Your task to perform on an android device: turn pop-ups on in chrome Image 0: 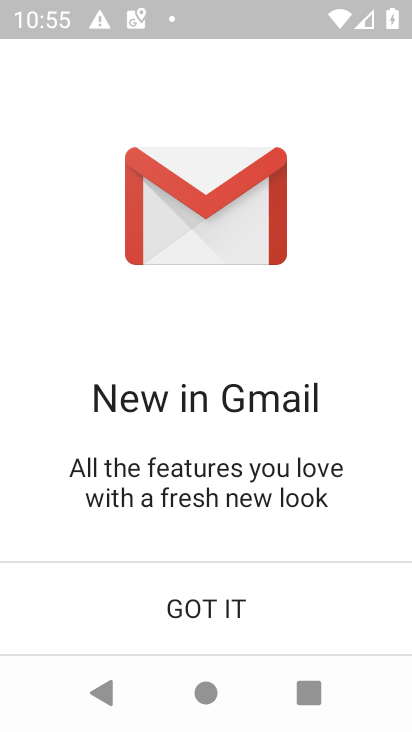
Step 0: press back button
Your task to perform on an android device: turn pop-ups on in chrome Image 1: 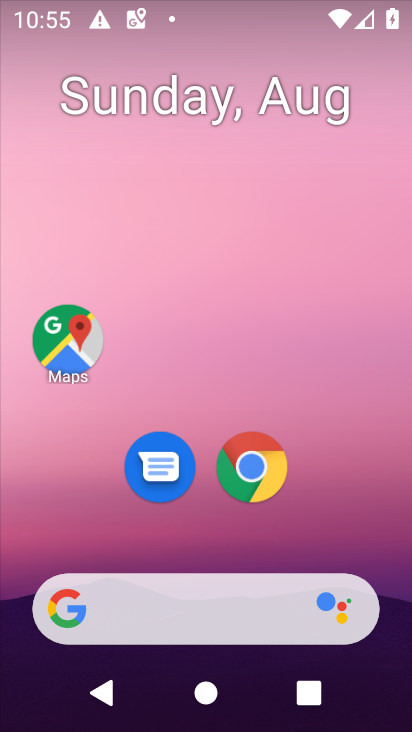
Step 1: drag from (213, 543) to (300, 3)
Your task to perform on an android device: turn pop-ups on in chrome Image 2: 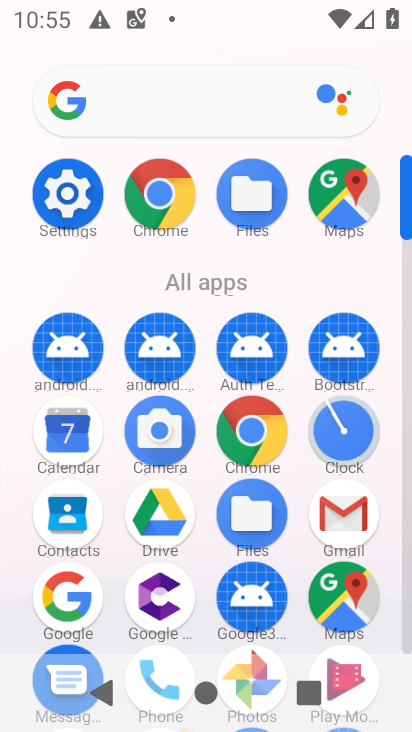
Step 2: drag from (244, 273) to (242, 109)
Your task to perform on an android device: turn pop-ups on in chrome Image 3: 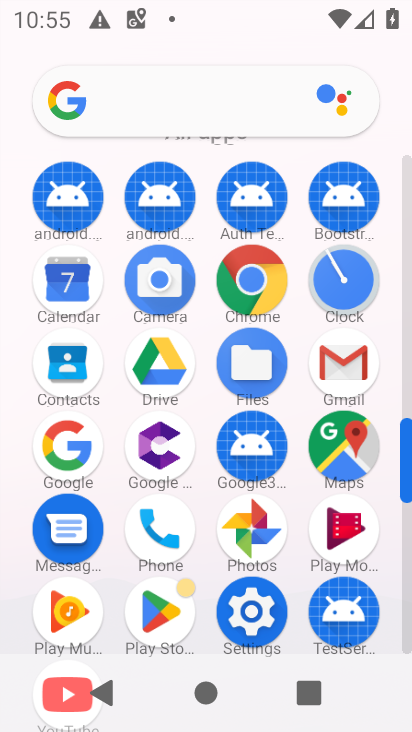
Step 3: click (233, 246)
Your task to perform on an android device: turn pop-ups on in chrome Image 4: 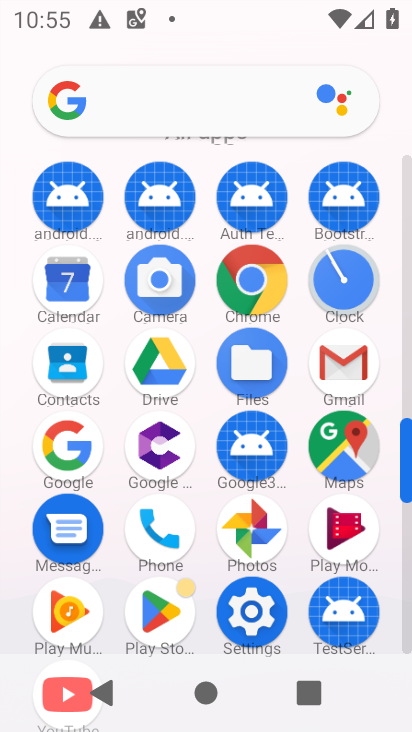
Step 4: click (236, 252)
Your task to perform on an android device: turn pop-ups on in chrome Image 5: 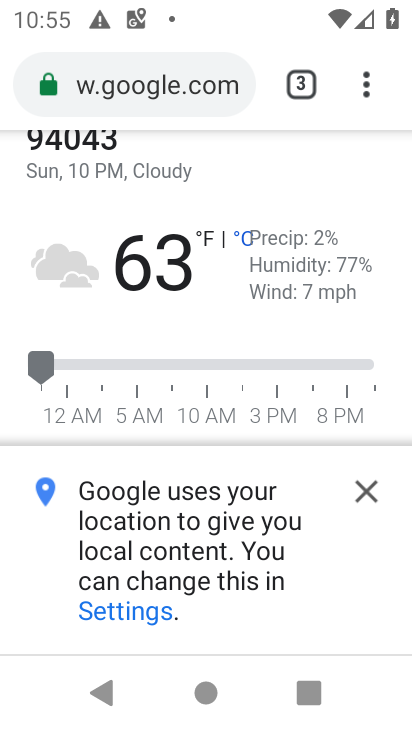
Step 5: click (358, 98)
Your task to perform on an android device: turn pop-ups on in chrome Image 6: 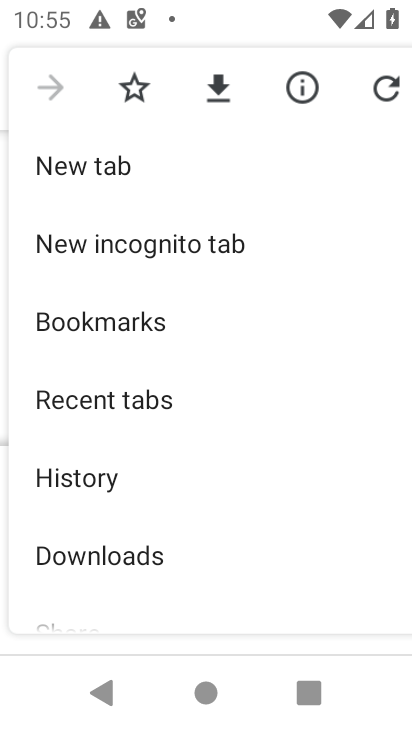
Step 6: drag from (145, 524) to (115, 125)
Your task to perform on an android device: turn pop-ups on in chrome Image 7: 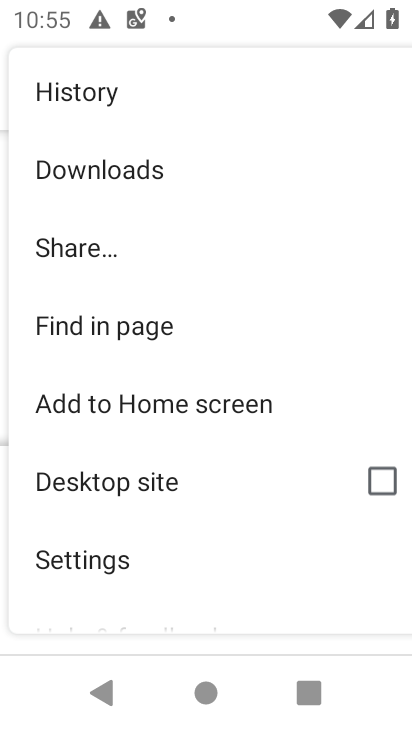
Step 7: drag from (188, 447) to (130, 247)
Your task to perform on an android device: turn pop-ups on in chrome Image 8: 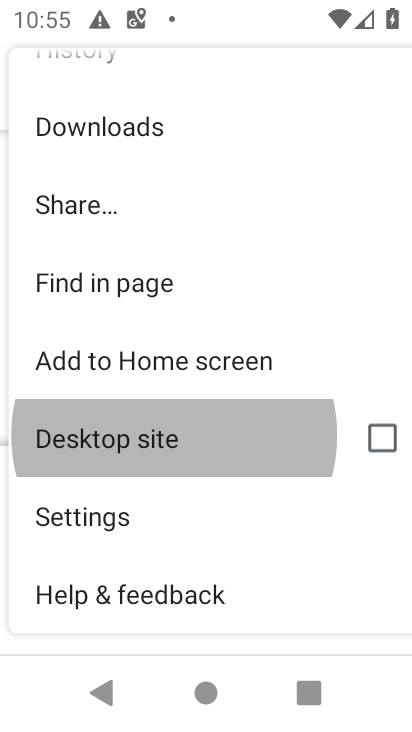
Step 8: drag from (163, 369) to (159, 288)
Your task to perform on an android device: turn pop-ups on in chrome Image 9: 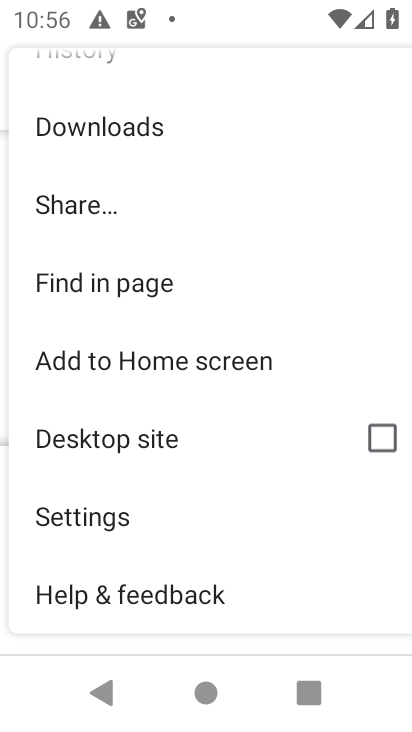
Step 9: click (85, 520)
Your task to perform on an android device: turn pop-ups on in chrome Image 10: 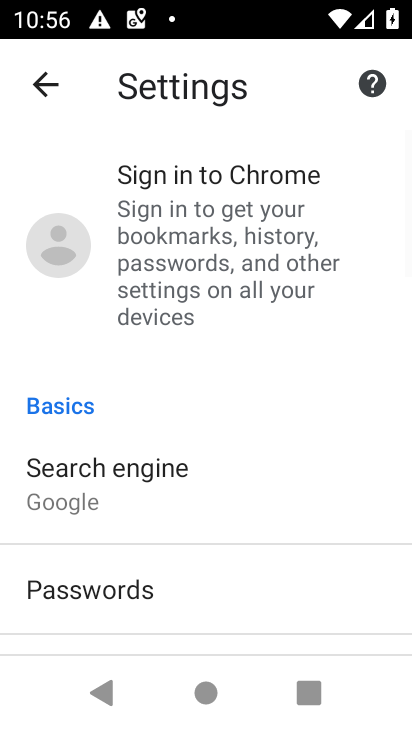
Step 10: drag from (145, 437) to (51, 193)
Your task to perform on an android device: turn pop-ups on in chrome Image 11: 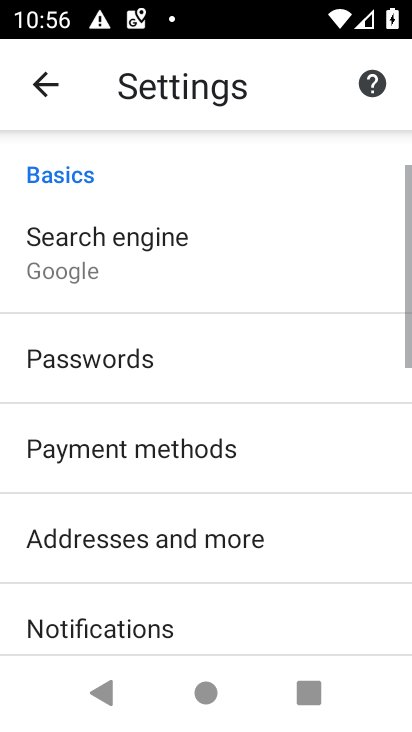
Step 11: drag from (163, 466) to (154, 102)
Your task to perform on an android device: turn pop-ups on in chrome Image 12: 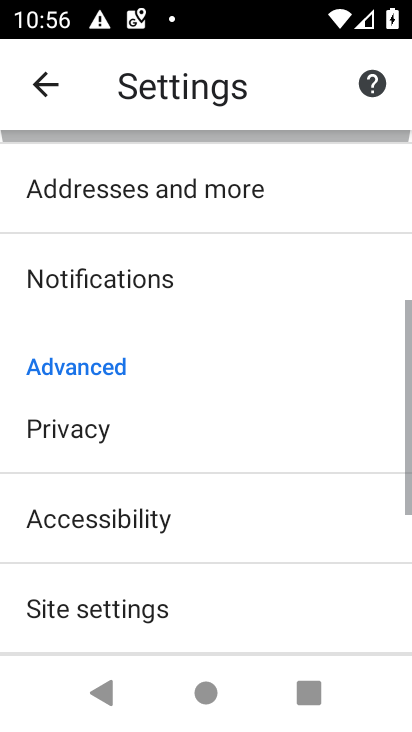
Step 12: drag from (245, 481) to (232, 298)
Your task to perform on an android device: turn pop-ups on in chrome Image 13: 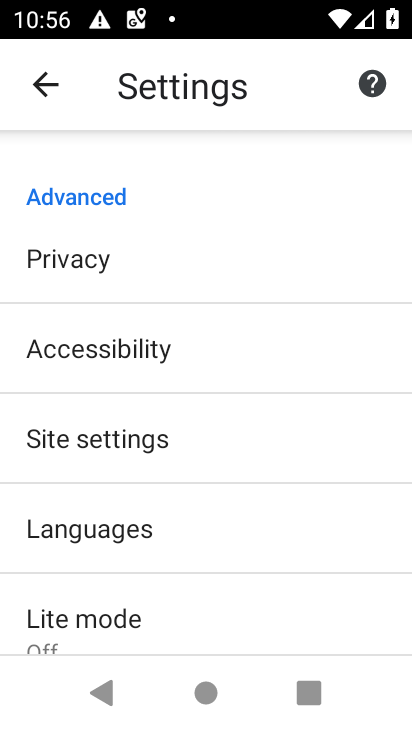
Step 13: click (83, 440)
Your task to perform on an android device: turn pop-ups on in chrome Image 14: 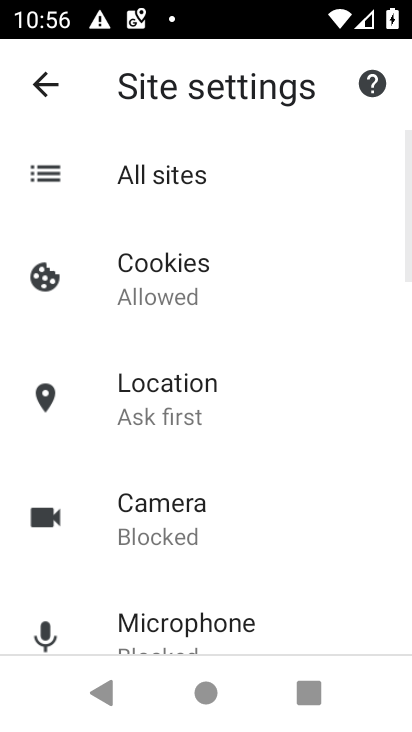
Step 14: drag from (200, 457) to (147, 183)
Your task to perform on an android device: turn pop-ups on in chrome Image 15: 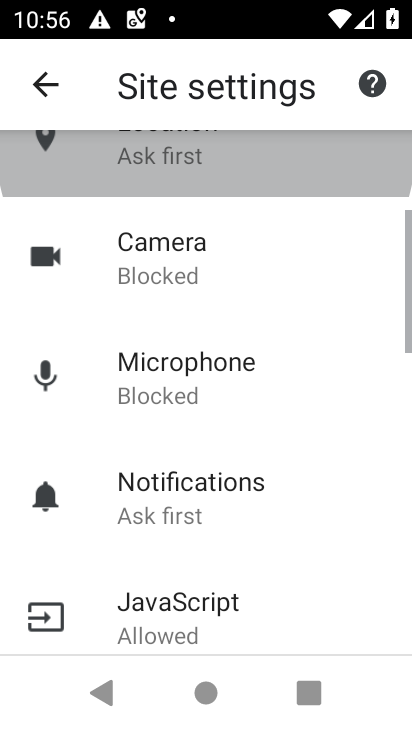
Step 15: drag from (170, 530) to (138, 310)
Your task to perform on an android device: turn pop-ups on in chrome Image 16: 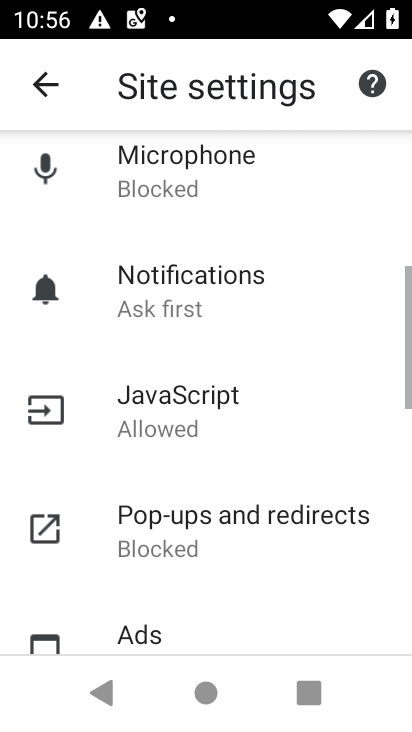
Step 16: drag from (193, 445) to (174, 284)
Your task to perform on an android device: turn pop-ups on in chrome Image 17: 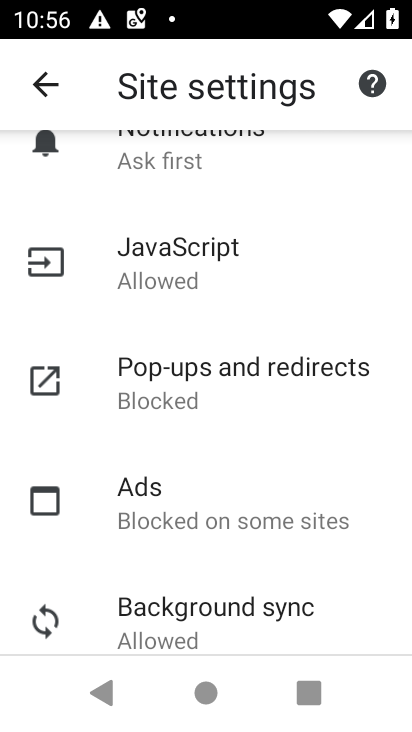
Step 17: click (152, 410)
Your task to perform on an android device: turn pop-ups on in chrome Image 18: 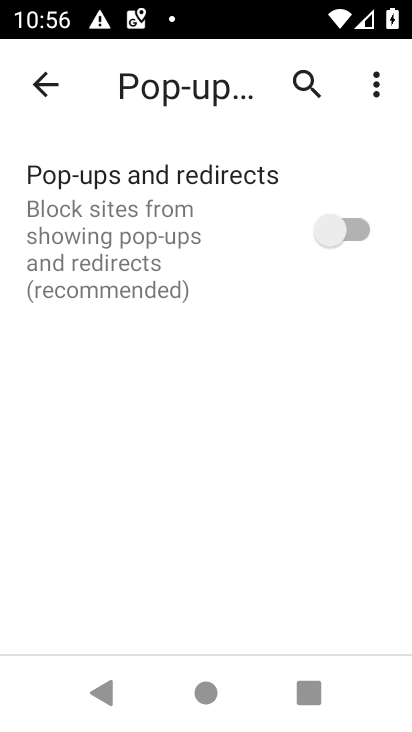
Step 18: click (332, 228)
Your task to perform on an android device: turn pop-ups on in chrome Image 19: 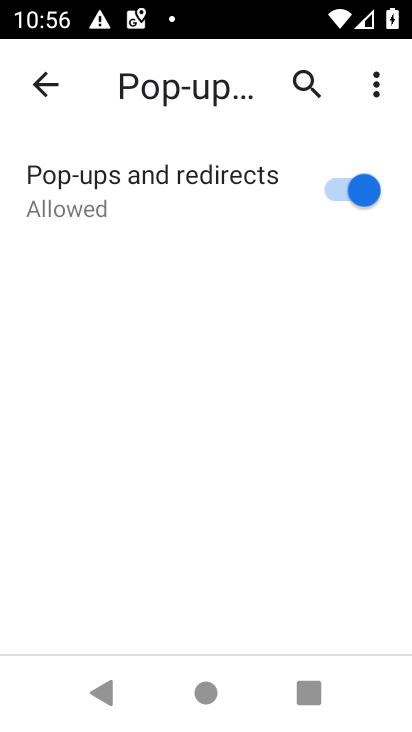
Step 19: task complete